Your task to perform on an android device: make emails show in primary in the gmail app Image 0: 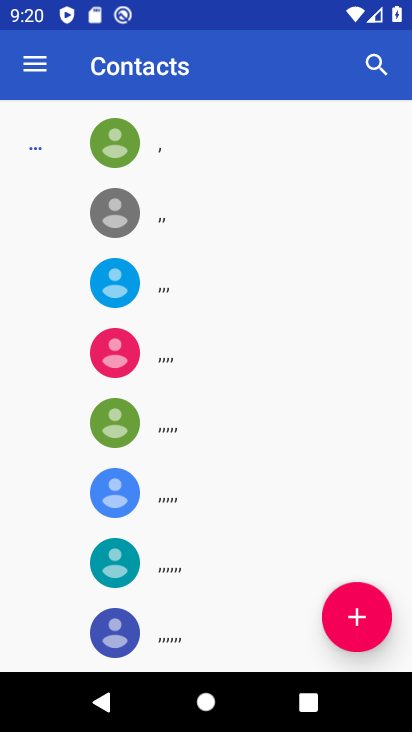
Step 0: press home button
Your task to perform on an android device: make emails show in primary in the gmail app Image 1: 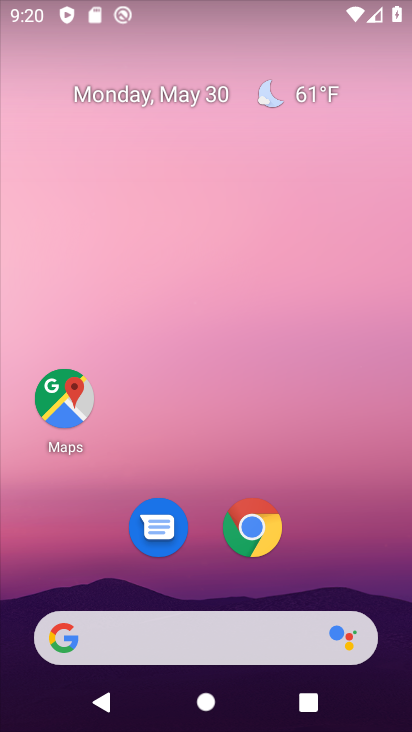
Step 1: drag from (316, 572) to (295, 82)
Your task to perform on an android device: make emails show in primary in the gmail app Image 2: 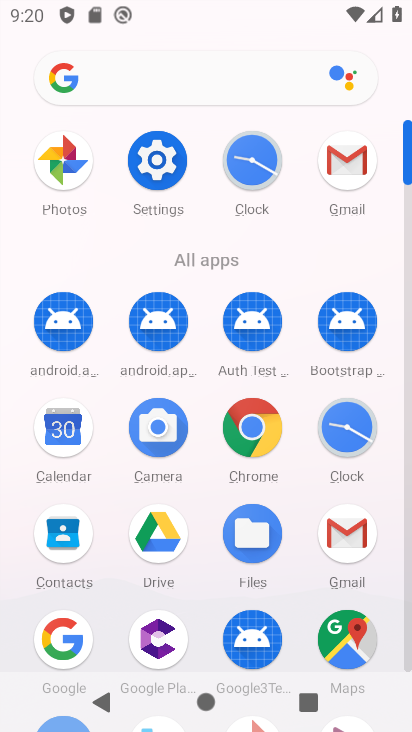
Step 2: click (346, 530)
Your task to perform on an android device: make emails show in primary in the gmail app Image 3: 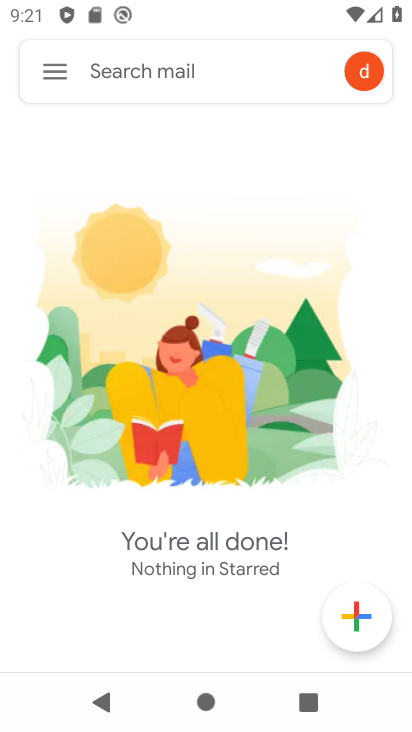
Step 3: click (67, 70)
Your task to perform on an android device: make emails show in primary in the gmail app Image 4: 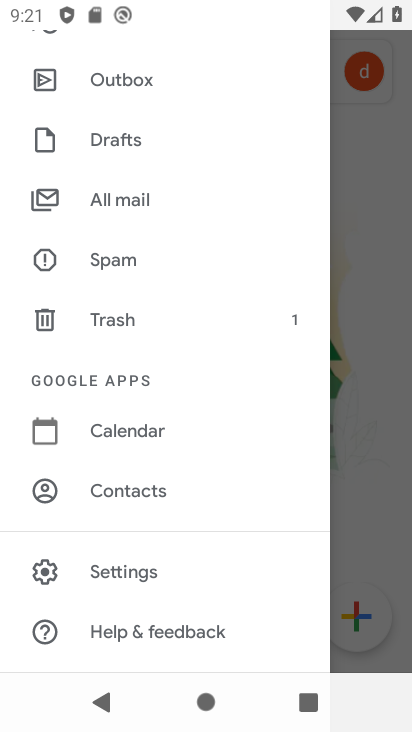
Step 4: click (114, 568)
Your task to perform on an android device: make emails show in primary in the gmail app Image 5: 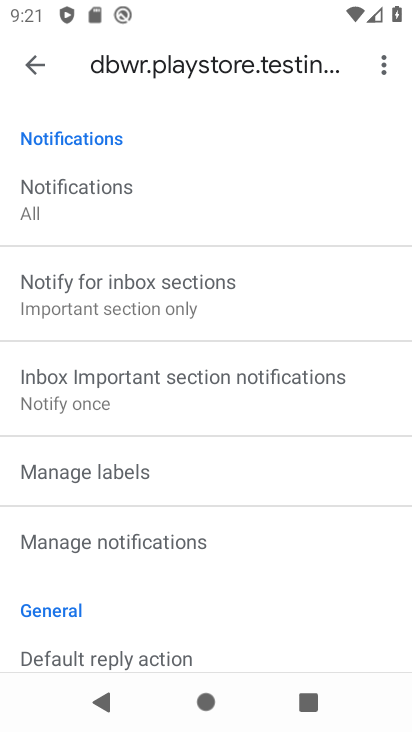
Step 5: drag from (130, 301) to (204, 603)
Your task to perform on an android device: make emails show in primary in the gmail app Image 6: 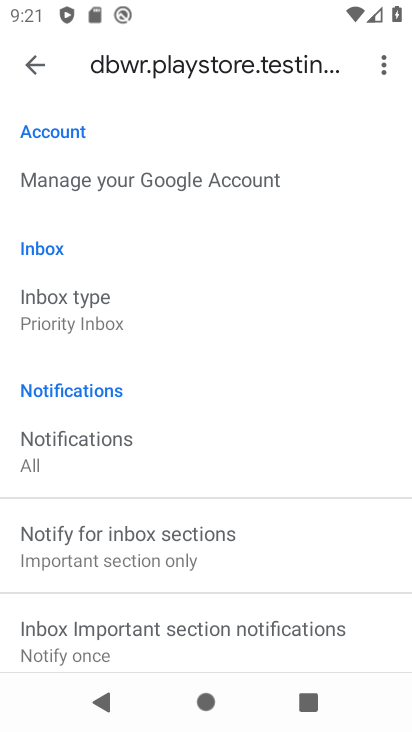
Step 6: click (106, 323)
Your task to perform on an android device: make emails show in primary in the gmail app Image 7: 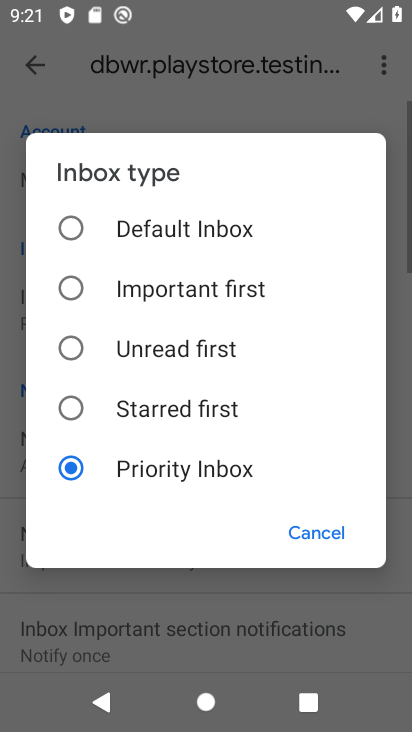
Step 7: click (127, 220)
Your task to perform on an android device: make emails show in primary in the gmail app Image 8: 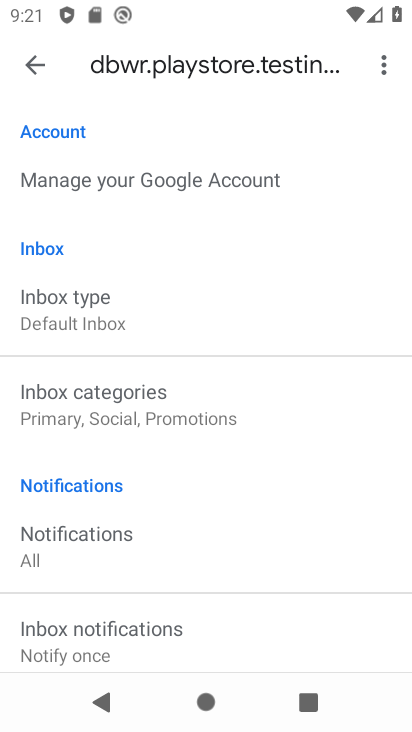
Step 8: task complete